Your task to perform on an android device: Open privacy settings Image 0: 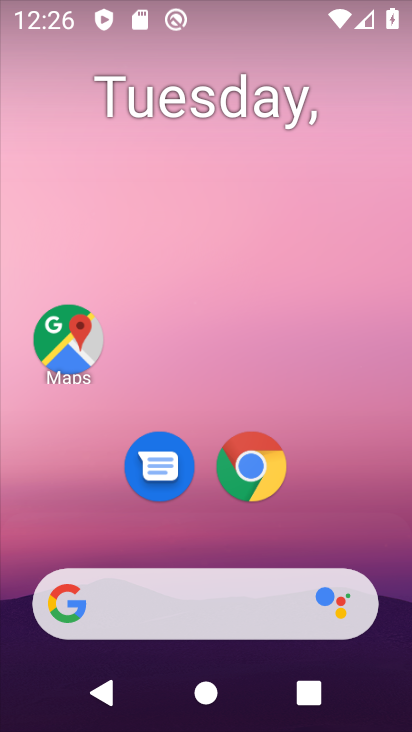
Step 0: click (248, 452)
Your task to perform on an android device: Open privacy settings Image 1: 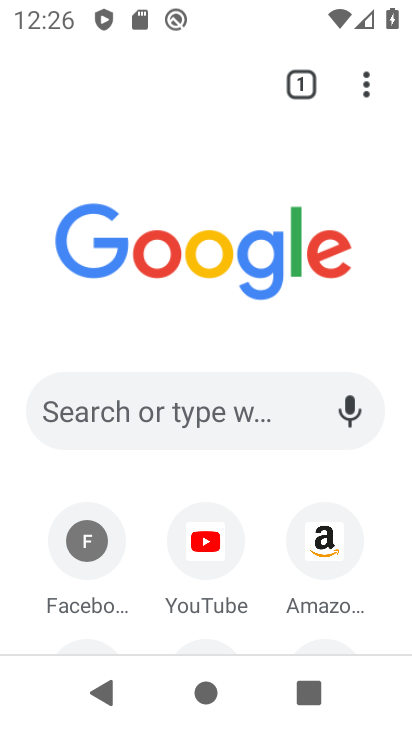
Step 1: drag from (381, 73) to (234, 522)
Your task to perform on an android device: Open privacy settings Image 2: 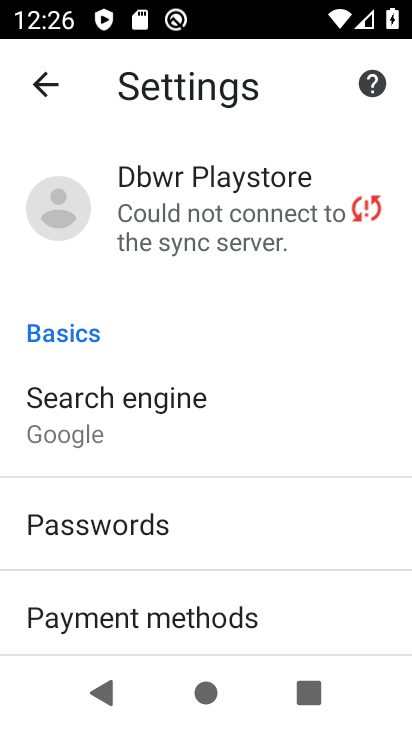
Step 2: drag from (191, 603) to (307, 186)
Your task to perform on an android device: Open privacy settings Image 3: 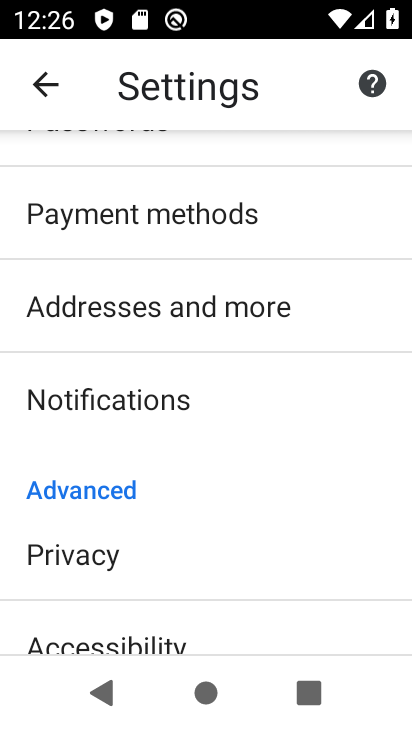
Step 3: click (160, 553)
Your task to perform on an android device: Open privacy settings Image 4: 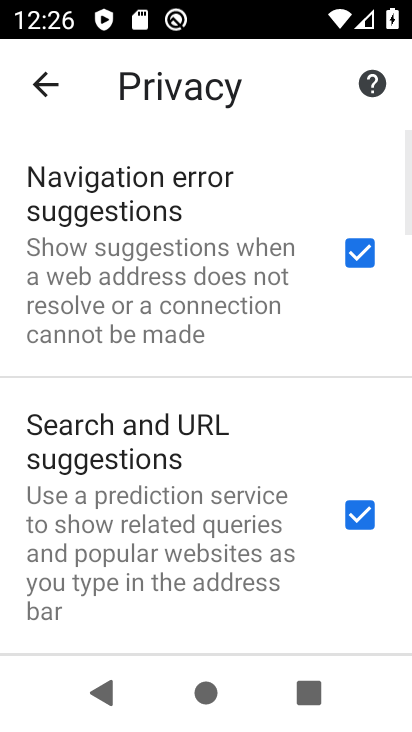
Step 4: task complete